Your task to perform on an android device: turn vacation reply on in the gmail app Image 0: 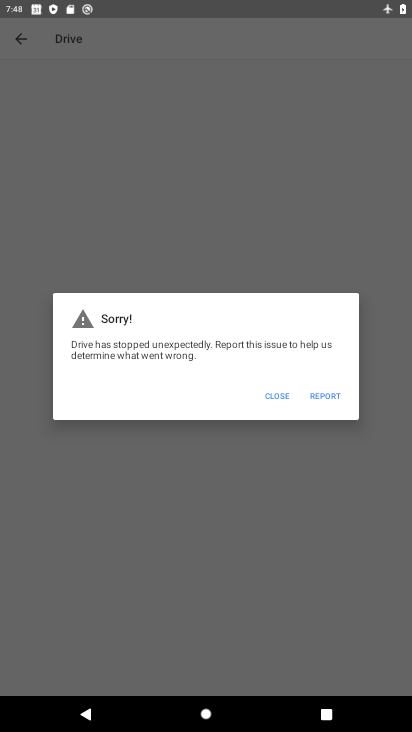
Step 0: press home button
Your task to perform on an android device: turn vacation reply on in the gmail app Image 1: 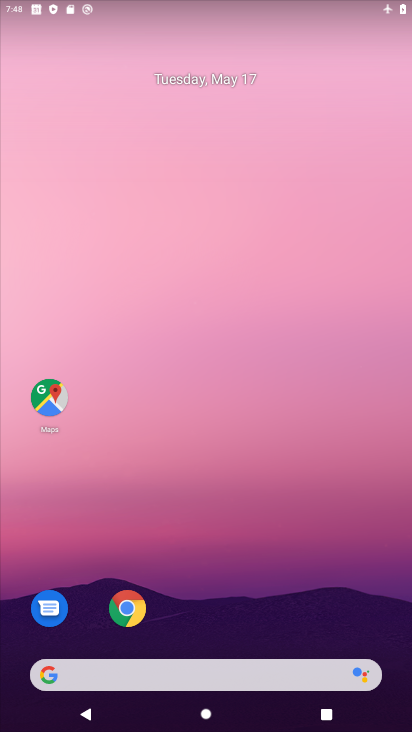
Step 1: drag from (249, 586) to (344, 57)
Your task to perform on an android device: turn vacation reply on in the gmail app Image 2: 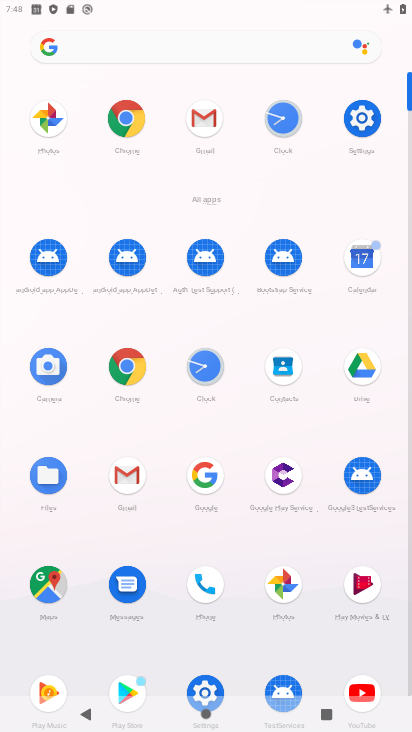
Step 2: click (120, 484)
Your task to perform on an android device: turn vacation reply on in the gmail app Image 3: 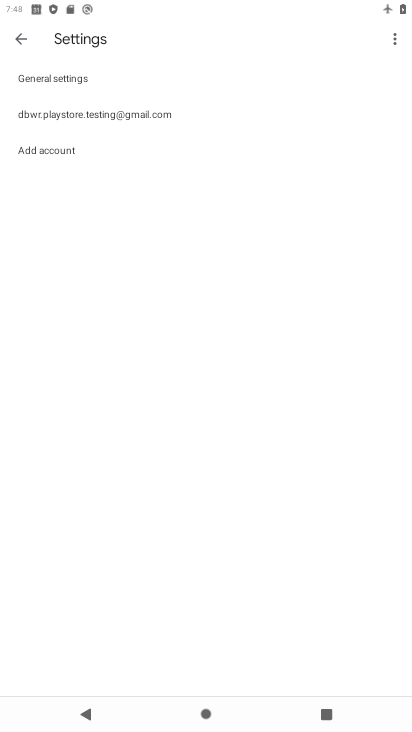
Step 3: click (102, 118)
Your task to perform on an android device: turn vacation reply on in the gmail app Image 4: 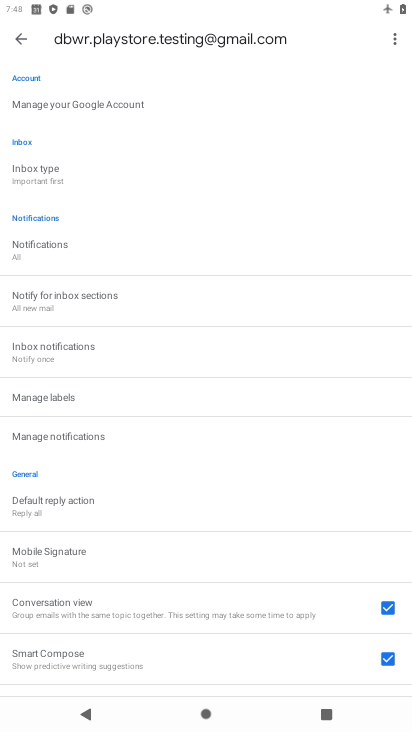
Step 4: drag from (139, 472) to (220, 103)
Your task to perform on an android device: turn vacation reply on in the gmail app Image 5: 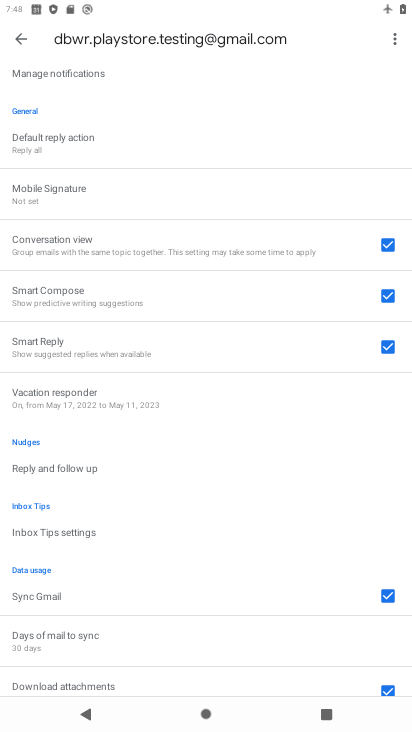
Step 5: drag from (138, 555) to (294, 41)
Your task to perform on an android device: turn vacation reply on in the gmail app Image 6: 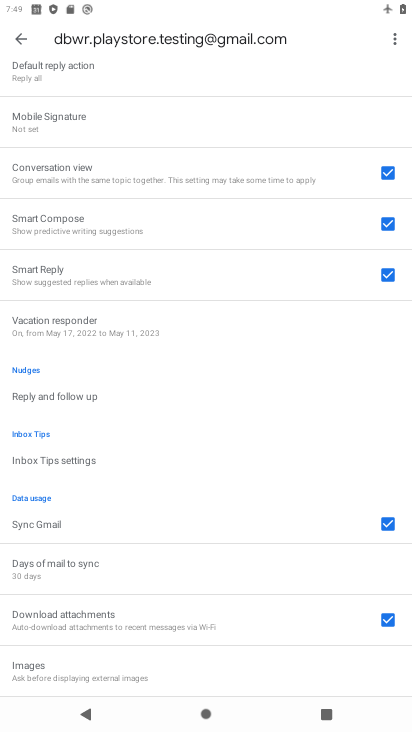
Step 6: click (93, 327)
Your task to perform on an android device: turn vacation reply on in the gmail app Image 7: 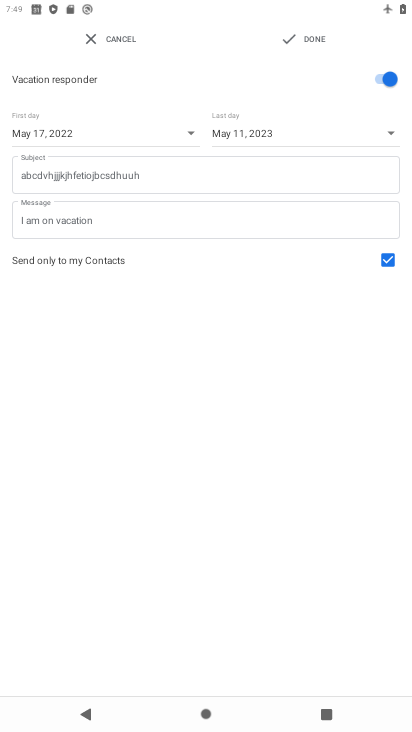
Step 7: task complete